Your task to perform on an android device: Search for sushi restaurants on Maps Image 0: 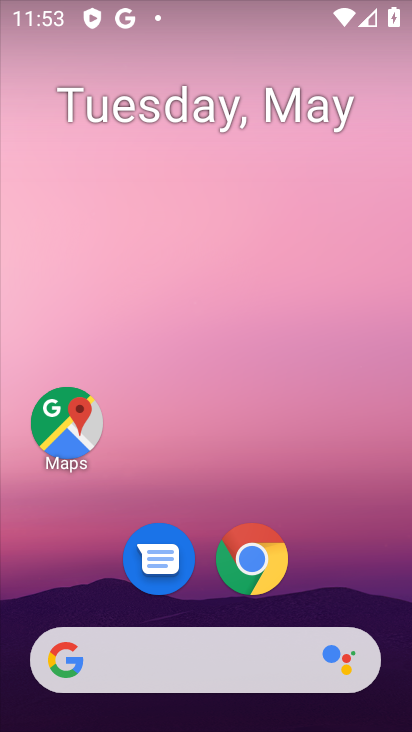
Step 0: click (65, 427)
Your task to perform on an android device: Search for sushi restaurants on Maps Image 1: 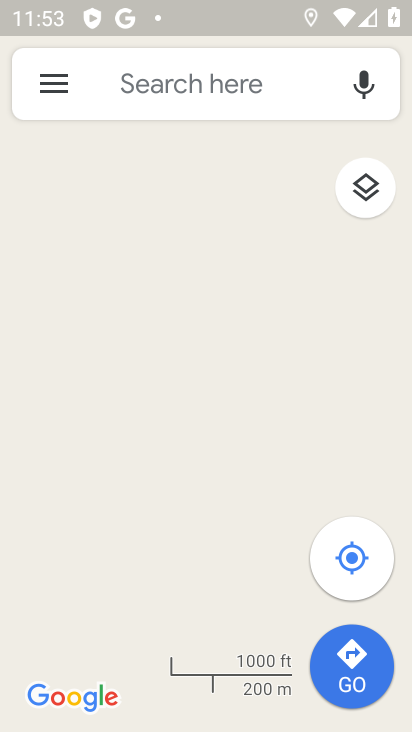
Step 1: click (175, 97)
Your task to perform on an android device: Search for sushi restaurants on Maps Image 2: 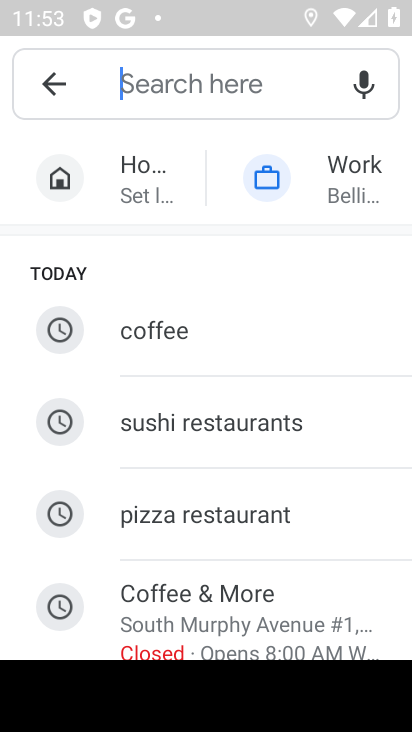
Step 2: type "Sushi restaurants"
Your task to perform on an android device: Search for sushi restaurants on Maps Image 3: 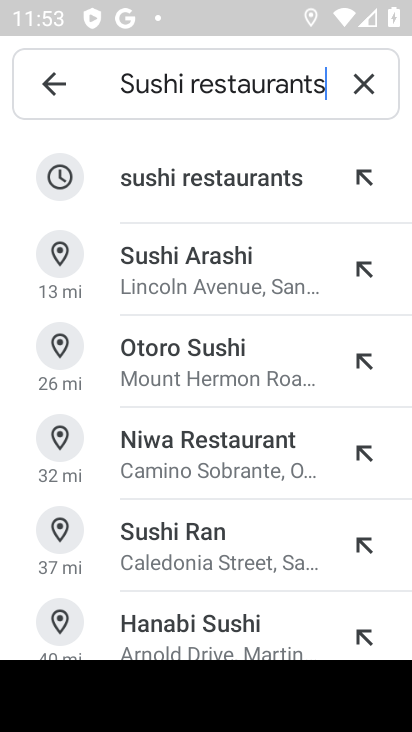
Step 3: click (255, 177)
Your task to perform on an android device: Search for sushi restaurants on Maps Image 4: 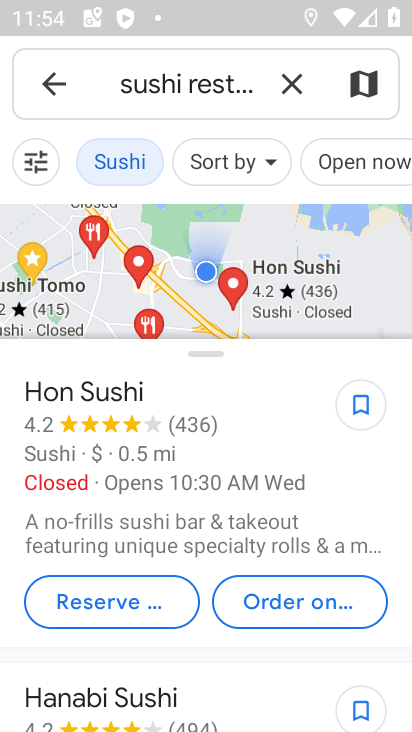
Step 4: task complete